Your task to perform on an android device: clear history in the chrome app Image 0: 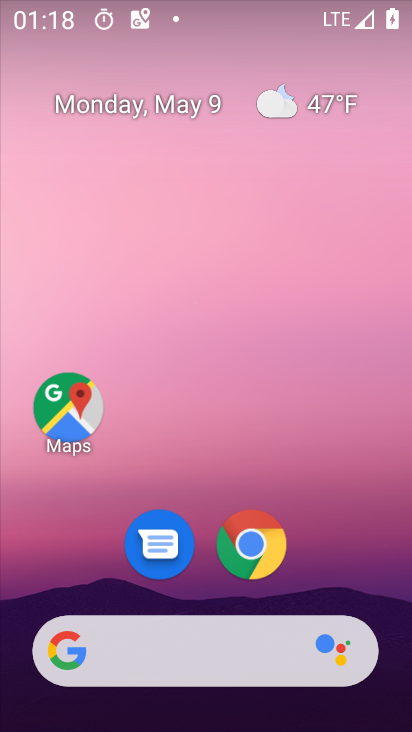
Step 0: drag from (321, 603) to (368, 214)
Your task to perform on an android device: clear history in the chrome app Image 1: 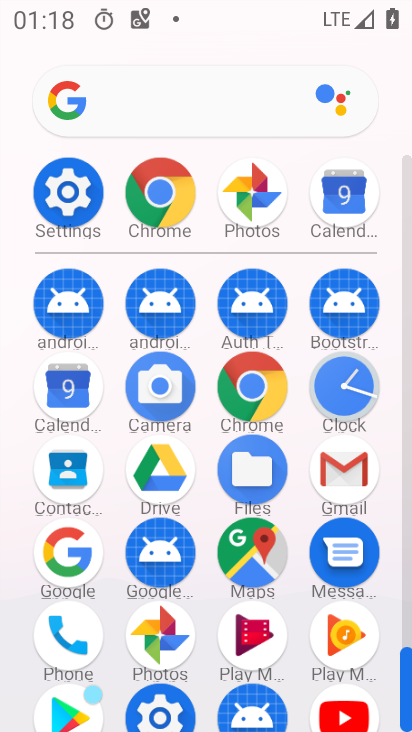
Step 1: click (252, 382)
Your task to perform on an android device: clear history in the chrome app Image 2: 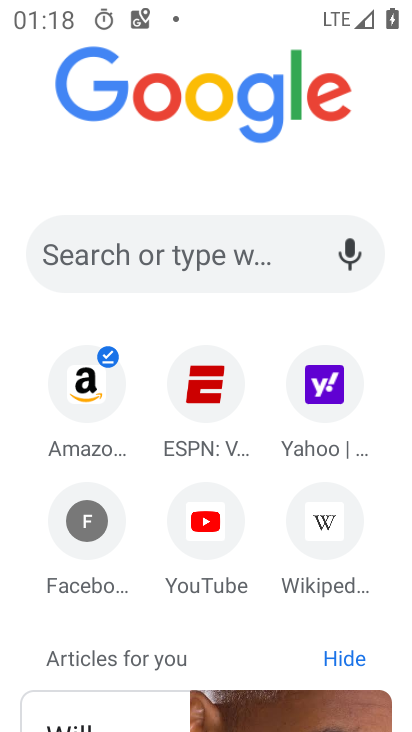
Step 2: drag from (352, 169) to (344, 506)
Your task to perform on an android device: clear history in the chrome app Image 3: 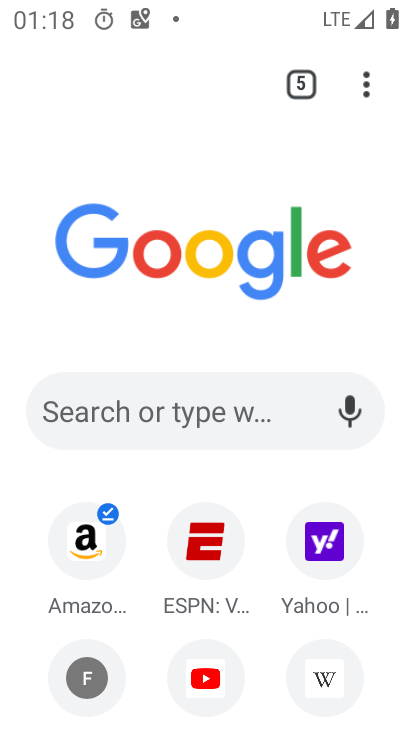
Step 3: drag from (370, 76) to (123, 477)
Your task to perform on an android device: clear history in the chrome app Image 4: 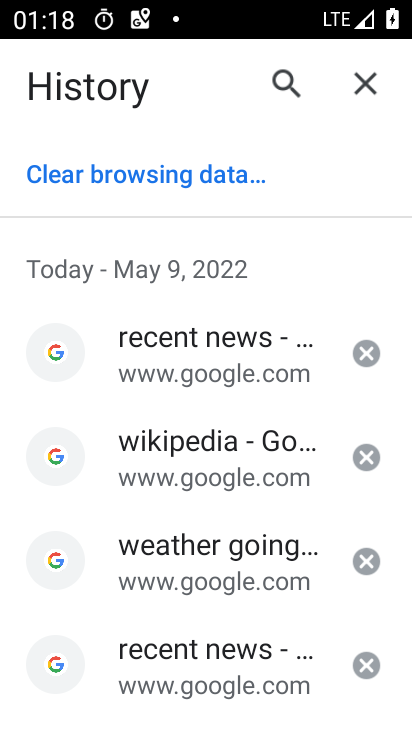
Step 4: click (242, 180)
Your task to perform on an android device: clear history in the chrome app Image 5: 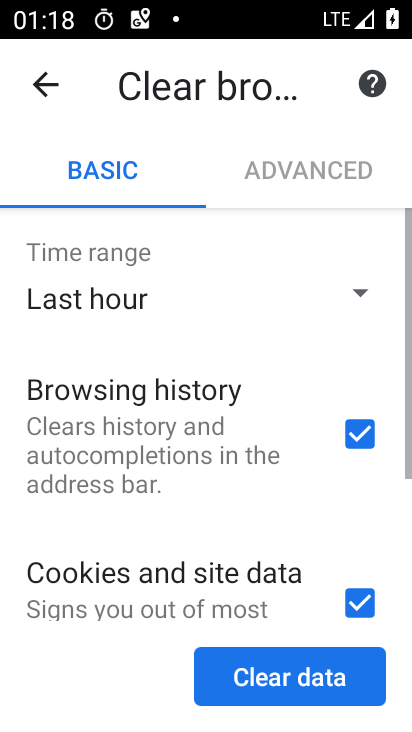
Step 5: click (321, 681)
Your task to perform on an android device: clear history in the chrome app Image 6: 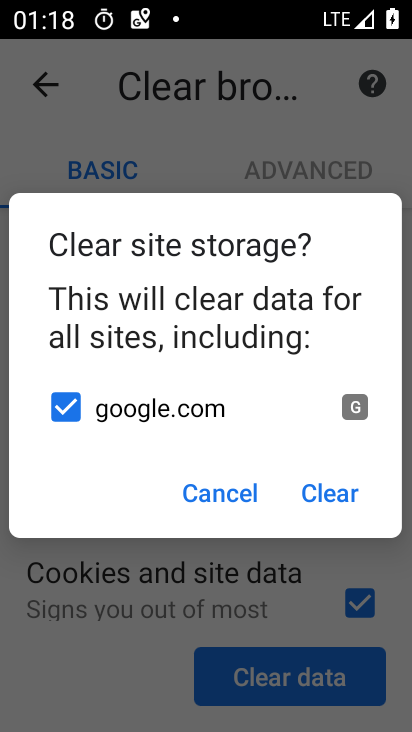
Step 6: click (313, 496)
Your task to perform on an android device: clear history in the chrome app Image 7: 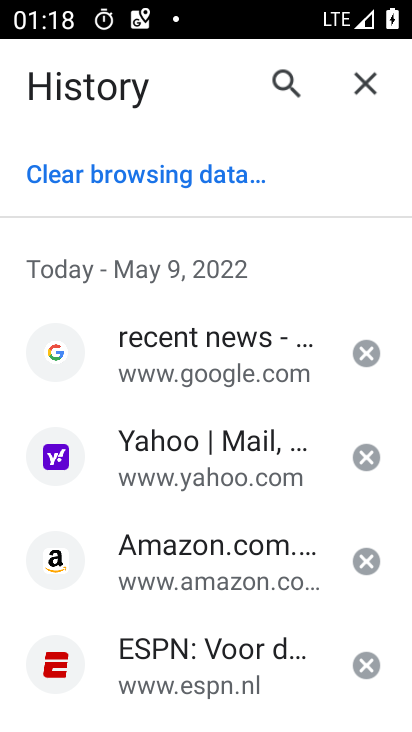
Step 7: click (223, 182)
Your task to perform on an android device: clear history in the chrome app Image 8: 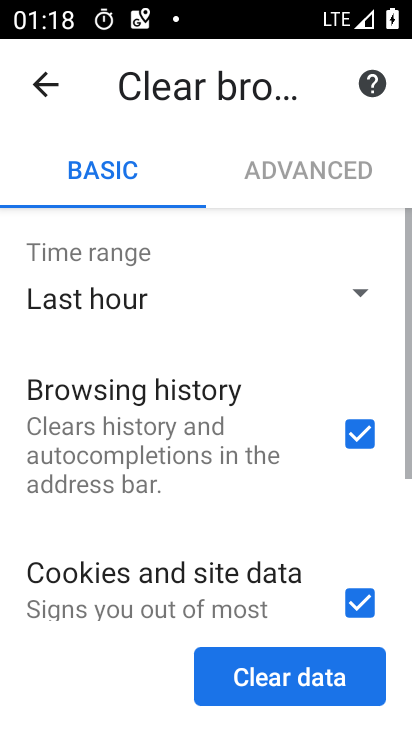
Step 8: click (323, 670)
Your task to perform on an android device: clear history in the chrome app Image 9: 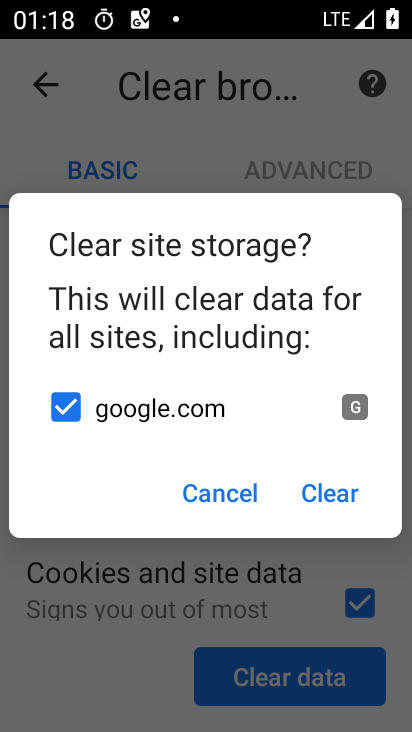
Step 9: click (336, 495)
Your task to perform on an android device: clear history in the chrome app Image 10: 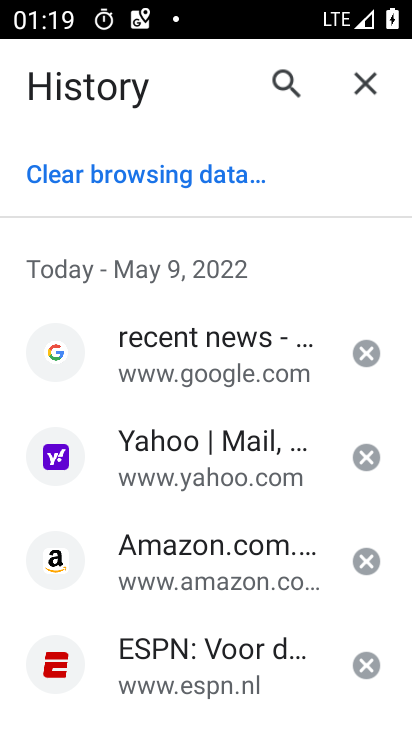
Step 10: click (373, 350)
Your task to perform on an android device: clear history in the chrome app Image 11: 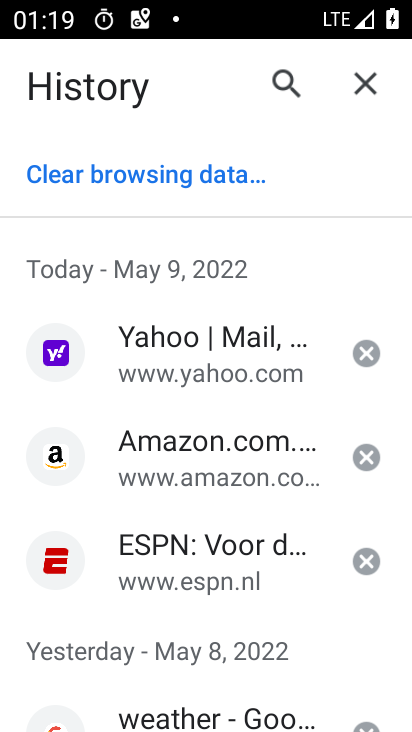
Step 11: click (363, 363)
Your task to perform on an android device: clear history in the chrome app Image 12: 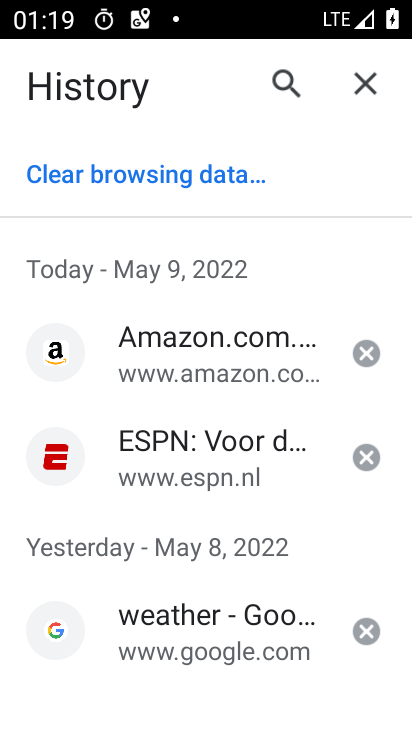
Step 12: click (359, 347)
Your task to perform on an android device: clear history in the chrome app Image 13: 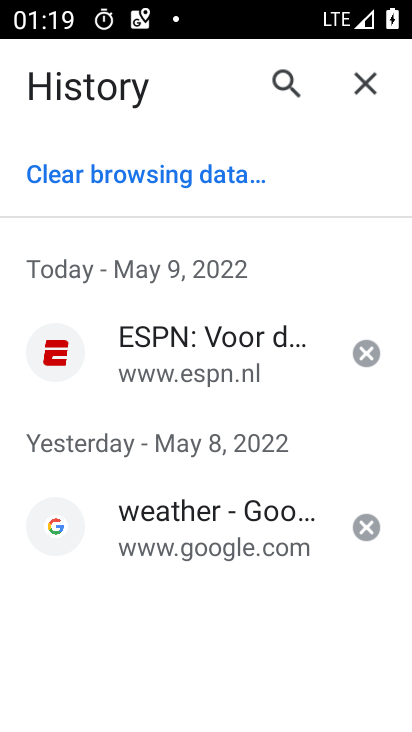
Step 13: click (352, 346)
Your task to perform on an android device: clear history in the chrome app Image 14: 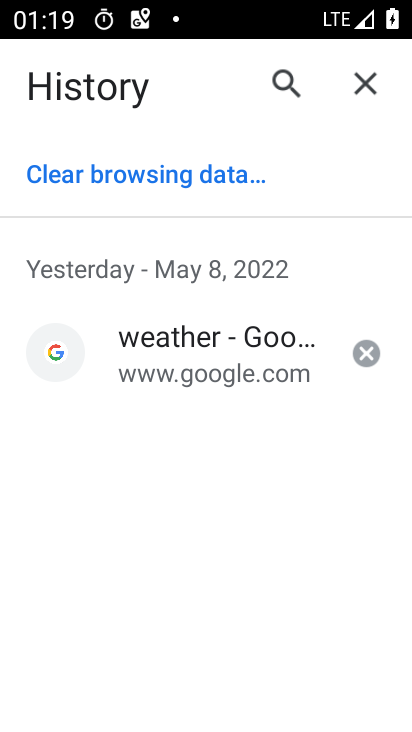
Step 14: click (365, 358)
Your task to perform on an android device: clear history in the chrome app Image 15: 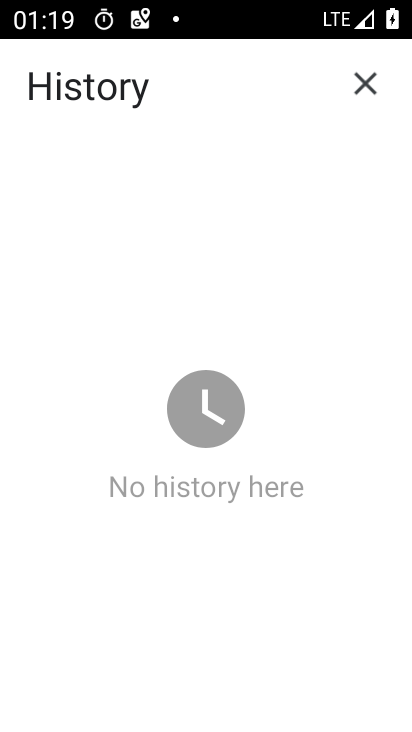
Step 15: task complete